Your task to perform on an android device: open app "VLC for Android" Image 0: 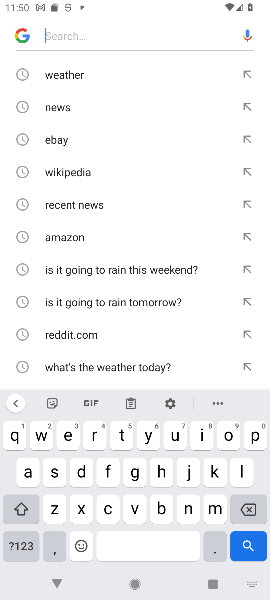
Step 0: press back button
Your task to perform on an android device: open app "VLC for Android" Image 1: 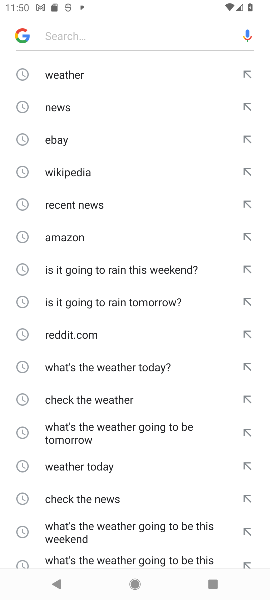
Step 1: press back button
Your task to perform on an android device: open app "VLC for Android" Image 2: 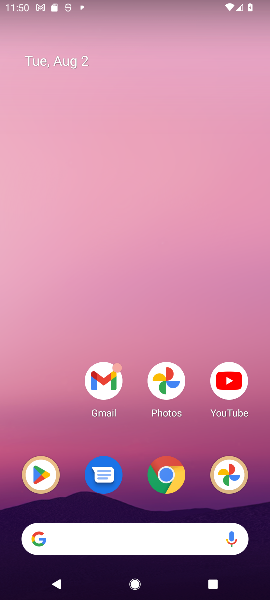
Step 2: click (39, 471)
Your task to perform on an android device: open app "VLC for Android" Image 3: 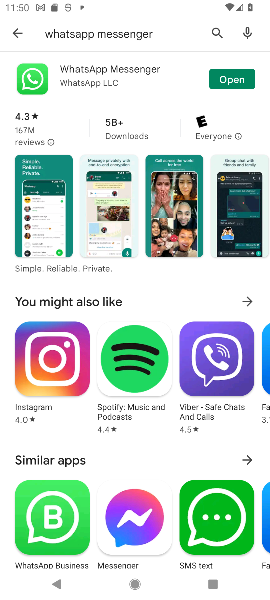
Step 3: click (213, 31)
Your task to perform on an android device: open app "VLC for Android" Image 4: 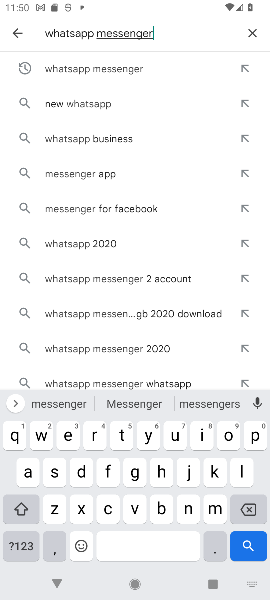
Step 4: click (257, 35)
Your task to perform on an android device: open app "VLC for Android" Image 5: 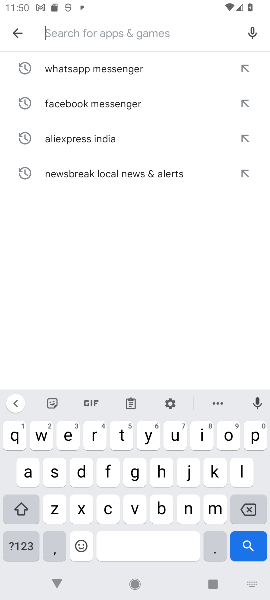
Step 5: type "VLC for Android"
Your task to perform on an android device: open app "VLC for Android" Image 6: 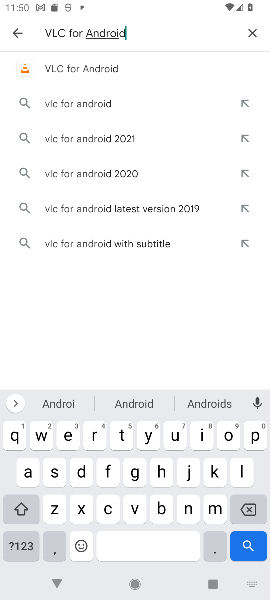
Step 6: type ""
Your task to perform on an android device: open app "VLC for Android" Image 7: 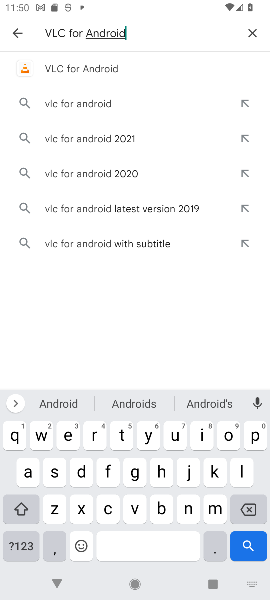
Step 7: click (149, 63)
Your task to perform on an android device: open app "VLC for Android" Image 8: 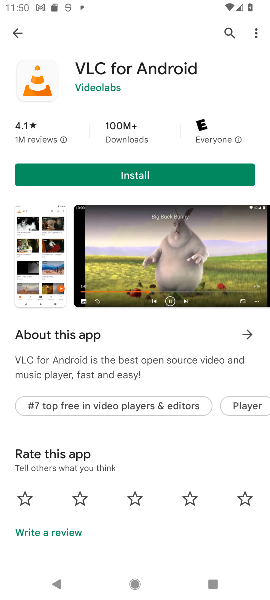
Step 8: task complete